Your task to perform on an android device: Find coffee shops on Maps Image 0: 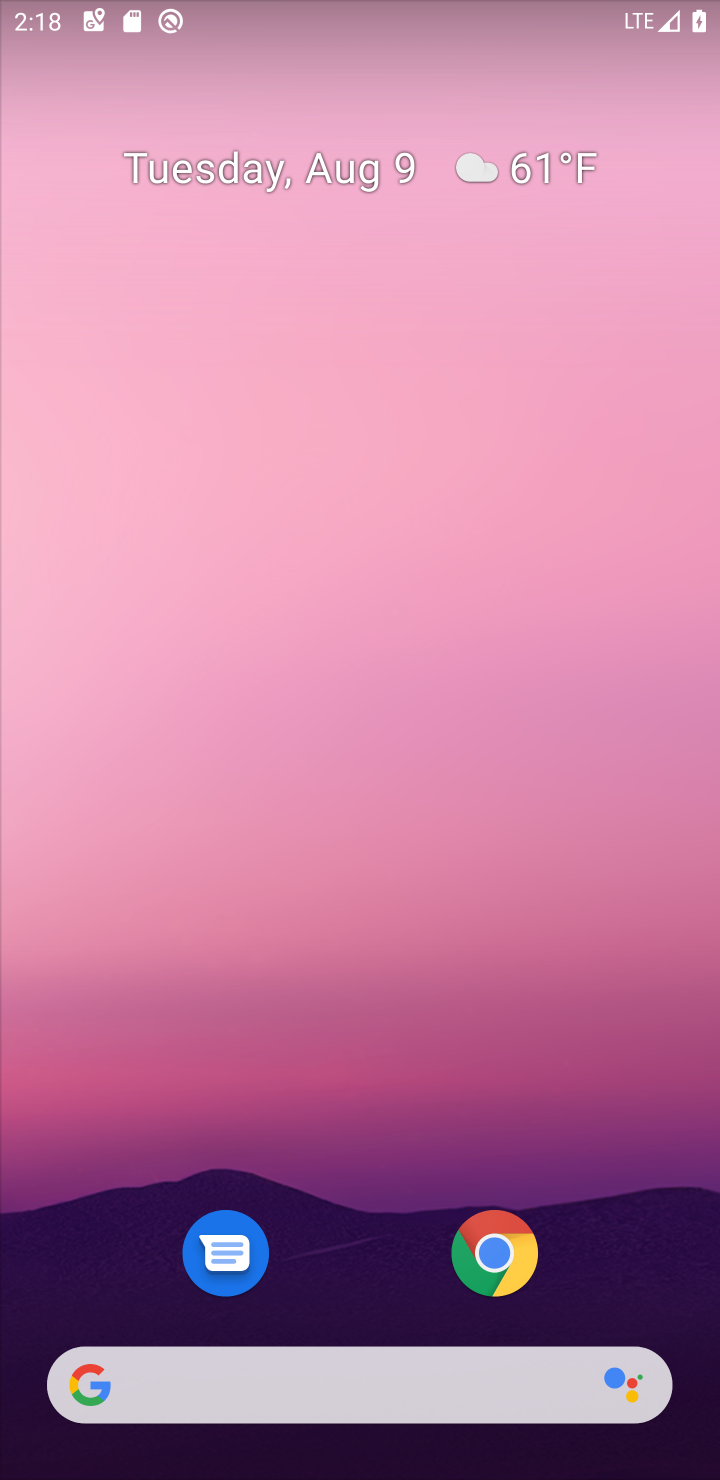
Step 0: drag from (664, 1325) to (306, 0)
Your task to perform on an android device: Find coffee shops on Maps Image 1: 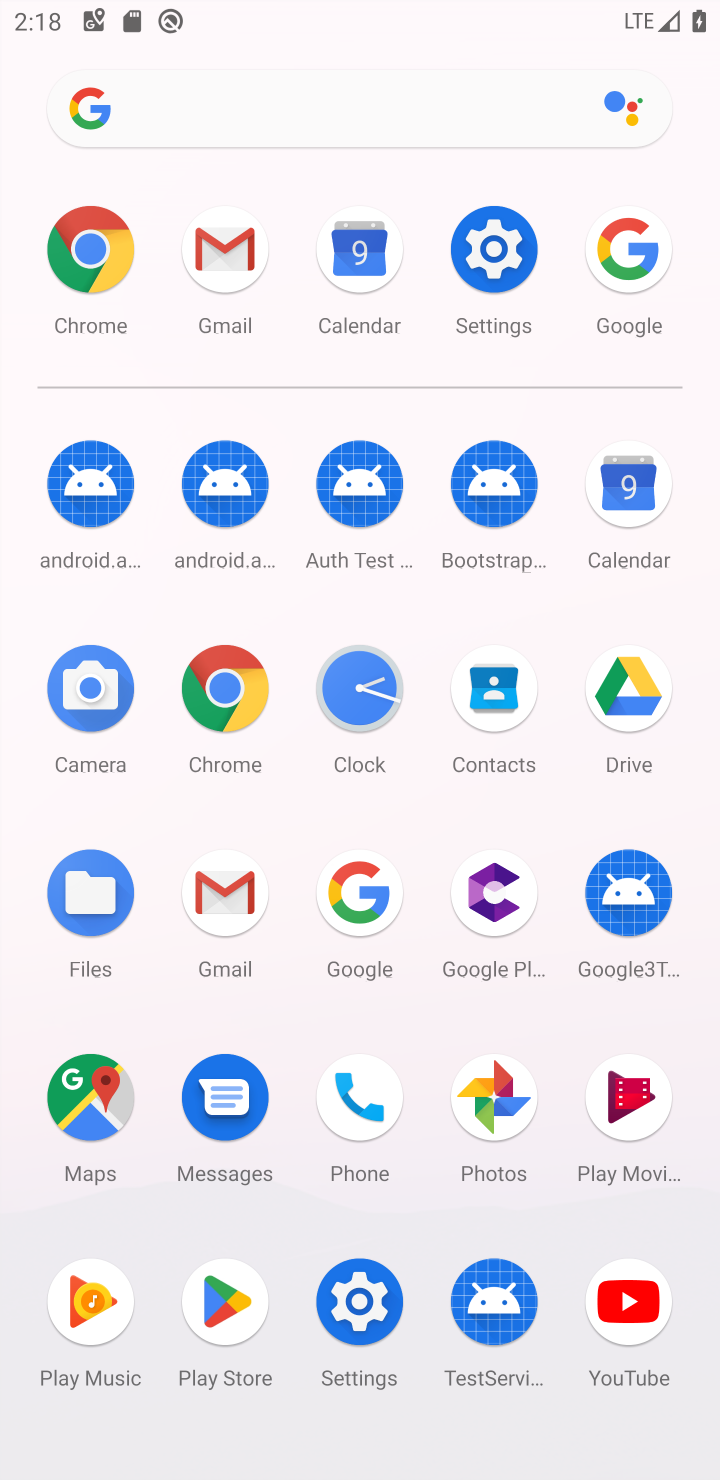
Step 1: click (78, 1086)
Your task to perform on an android device: Find coffee shops on Maps Image 2: 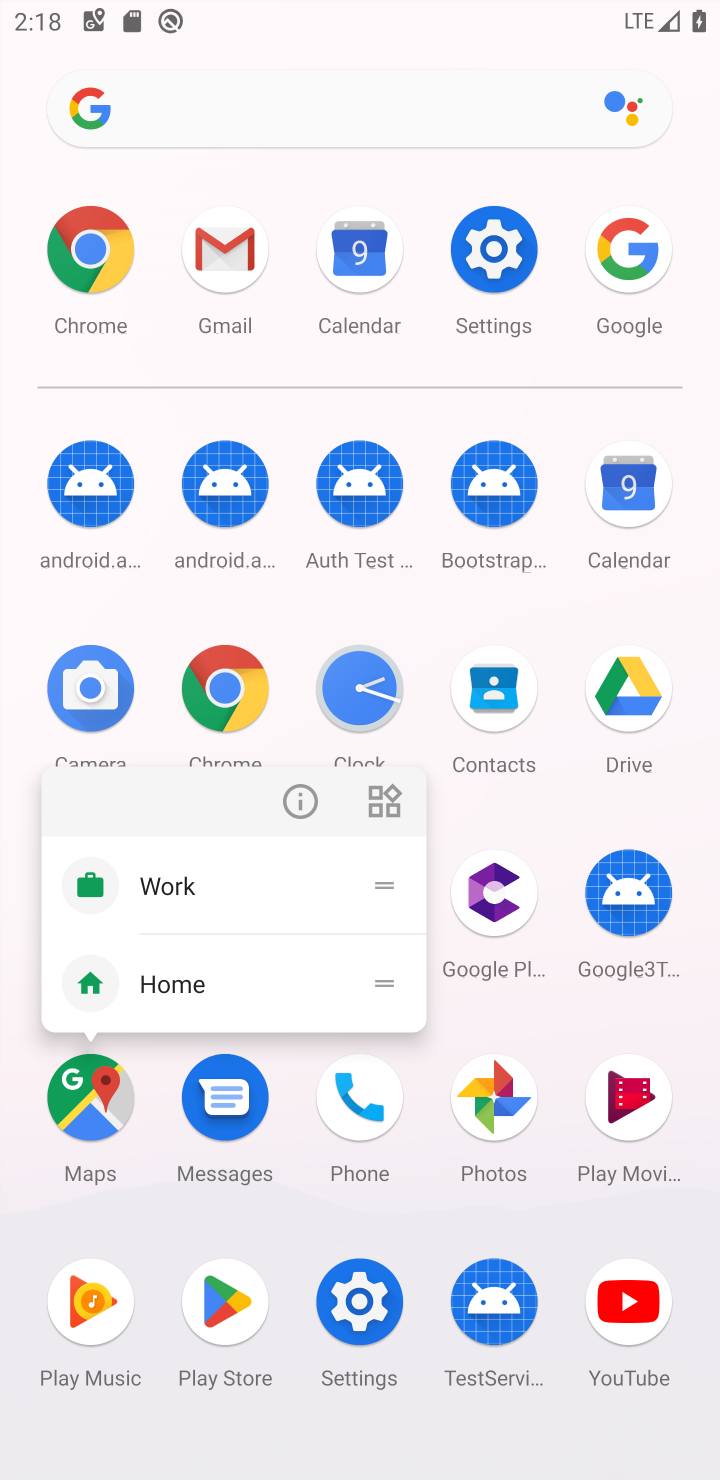
Step 2: click (78, 1086)
Your task to perform on an android device: Find coffee shops on Maps Image 3: 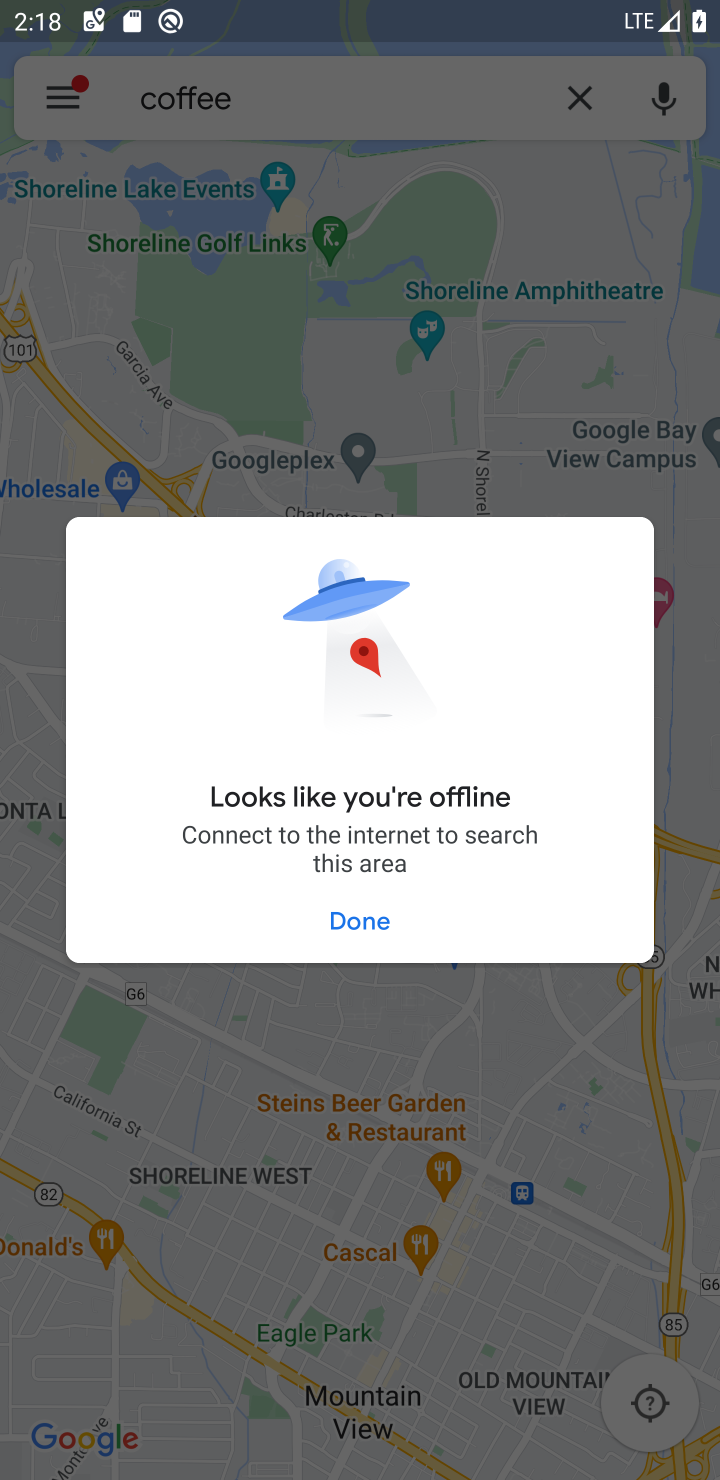
Step 3: click (390, 920)
Your task to perform on an android device: Find coffee shops on Maps Image 4: 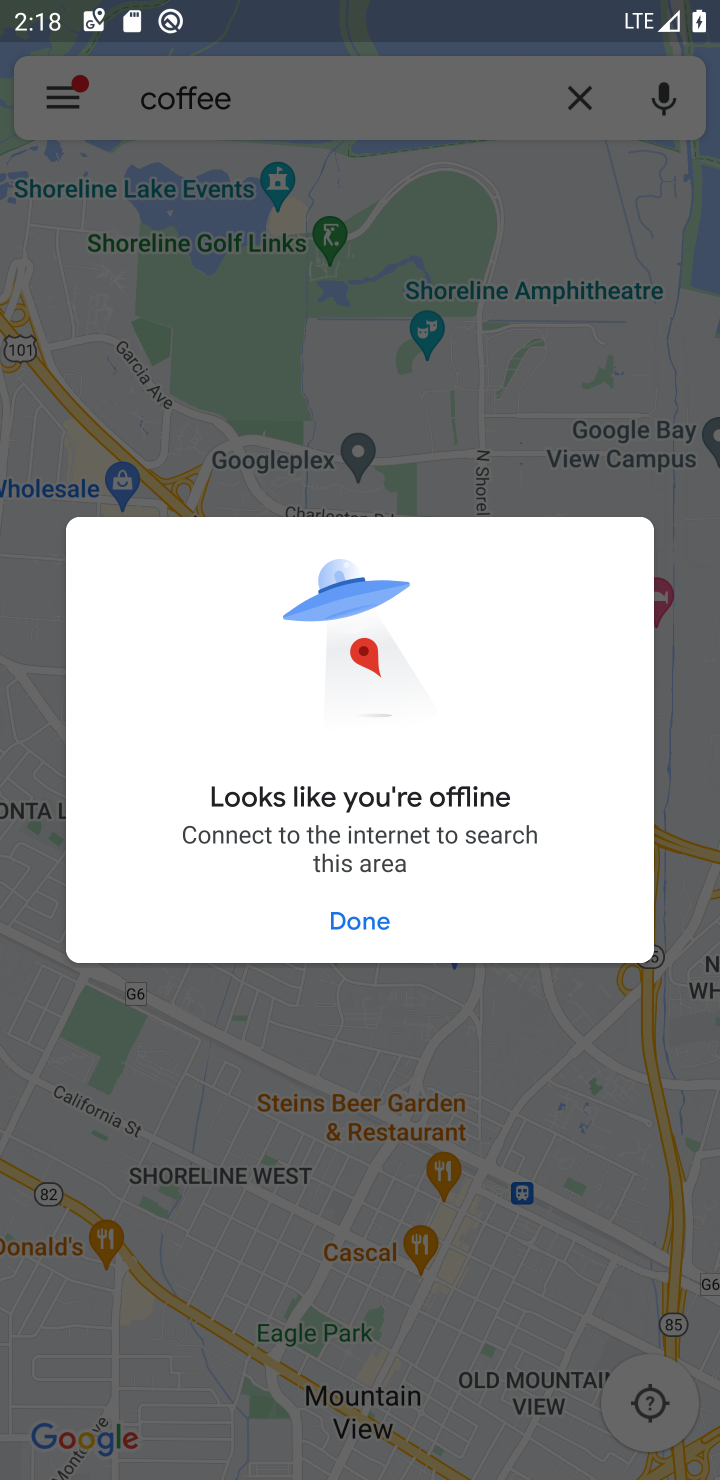
Step 4: press back button
Your task to perform on an android device: Find coffee shops on Maps Image 5: 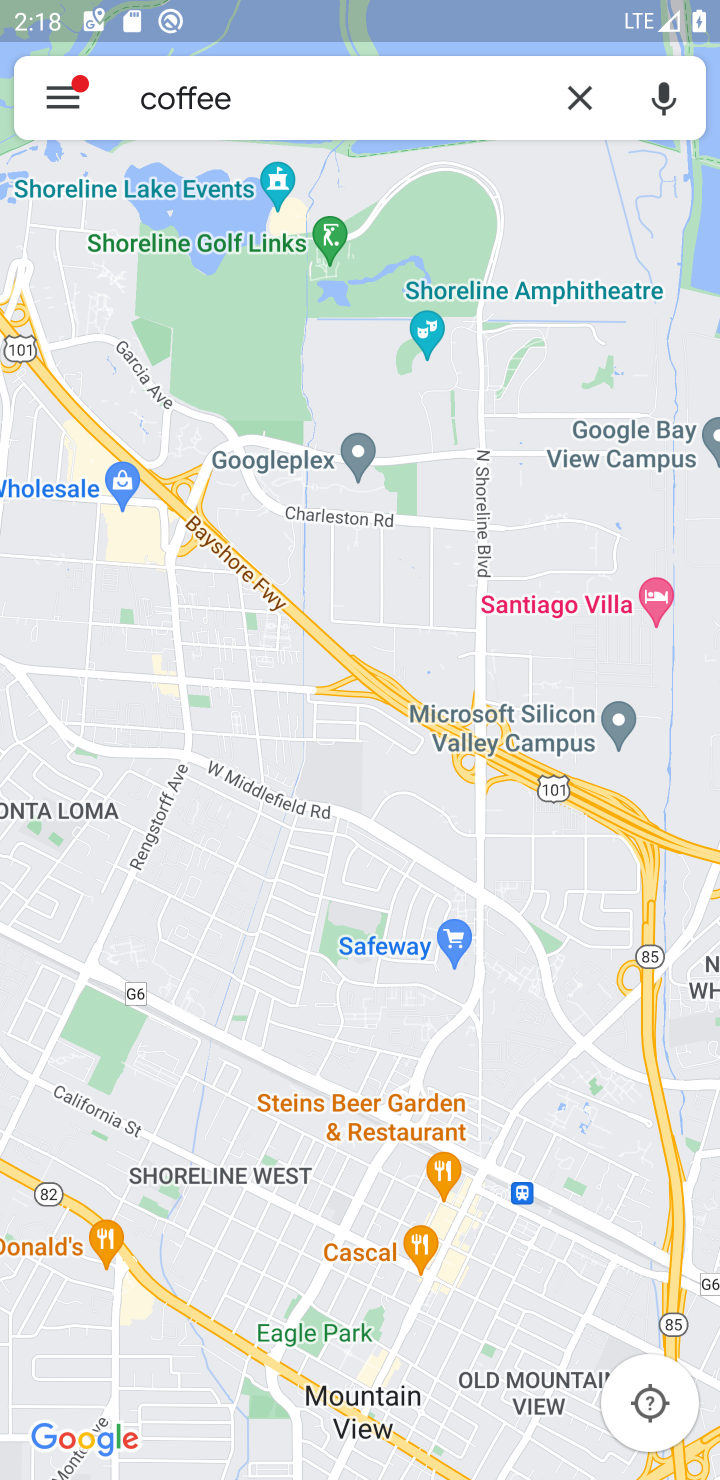
Step 5: click (524, 94)
Your task to perform on an android device: Find coffee shops on Maps Image 6: 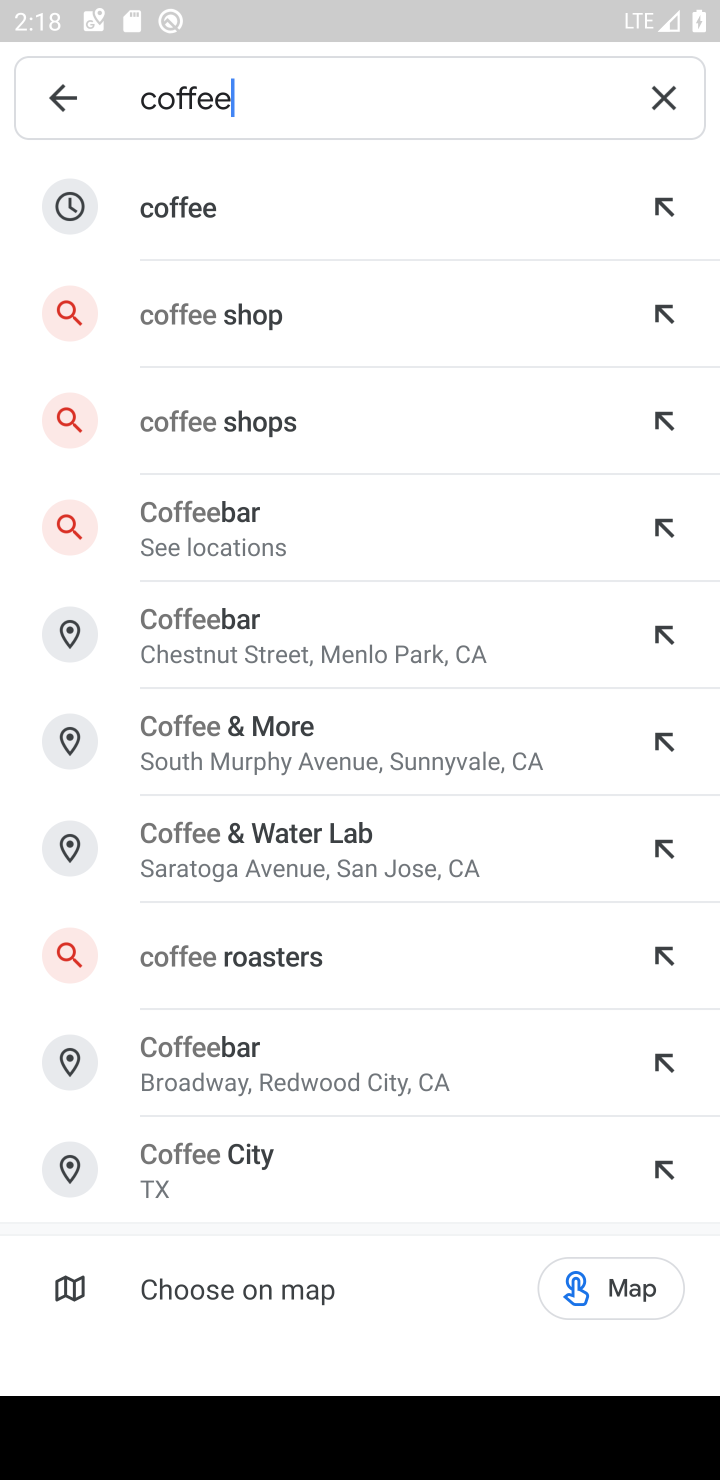
Step 6: click (226, 206)
Your task to perform on an android device: Find coffee shops on Maps Image 7: 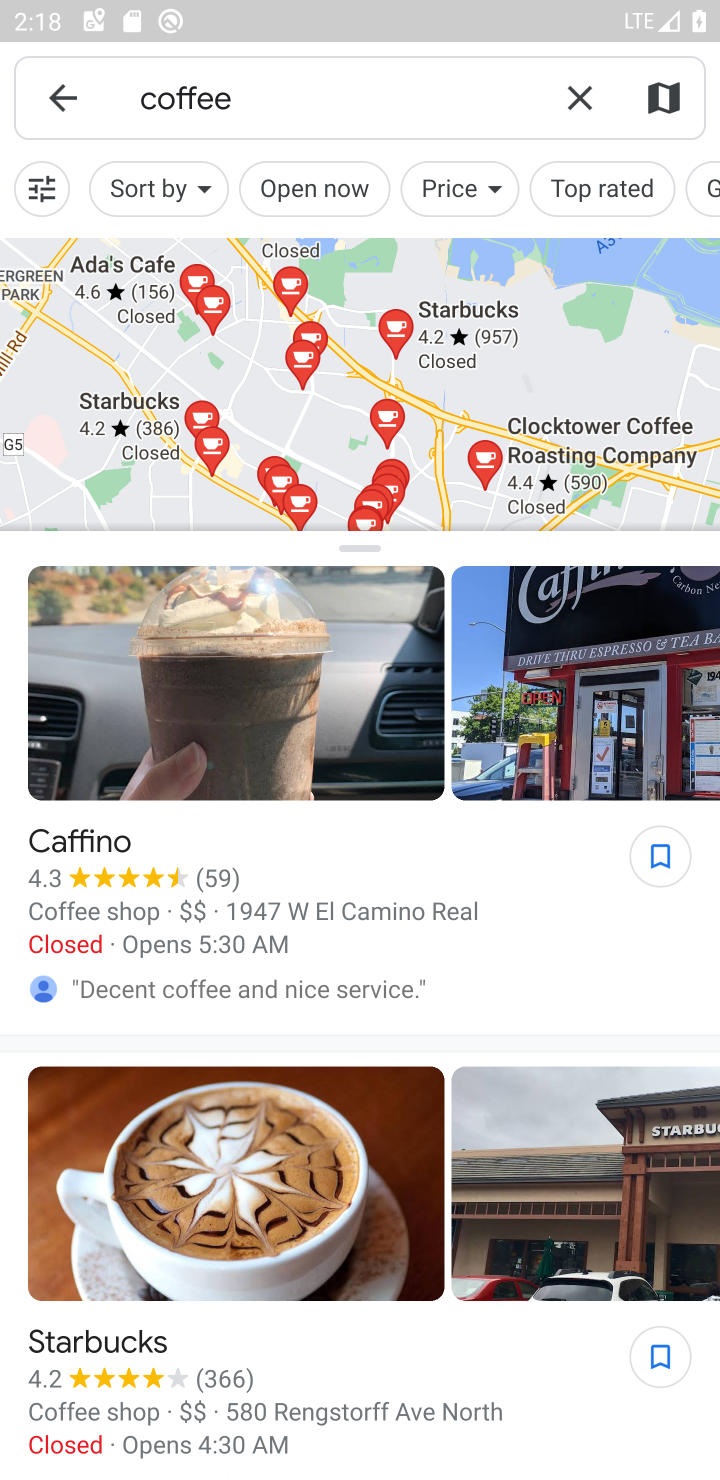
Step 7: task complete